Your task to perform on an android device: turn off airplane mode Image 0: 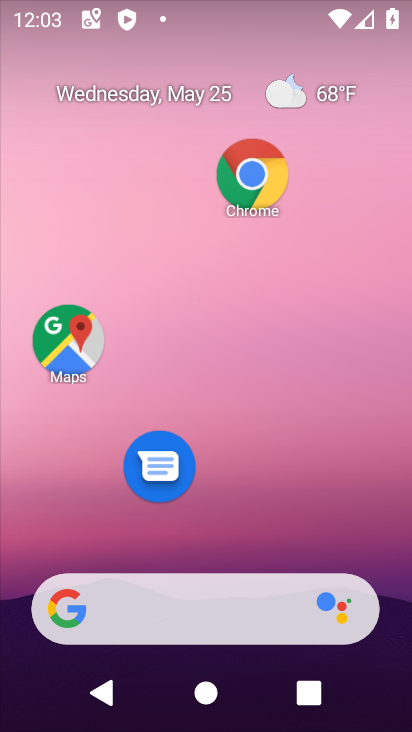
Step 0: drag from (204, 540) to (196, 81)
Your task to perform on an android device: turn off airplane mode Image 1: 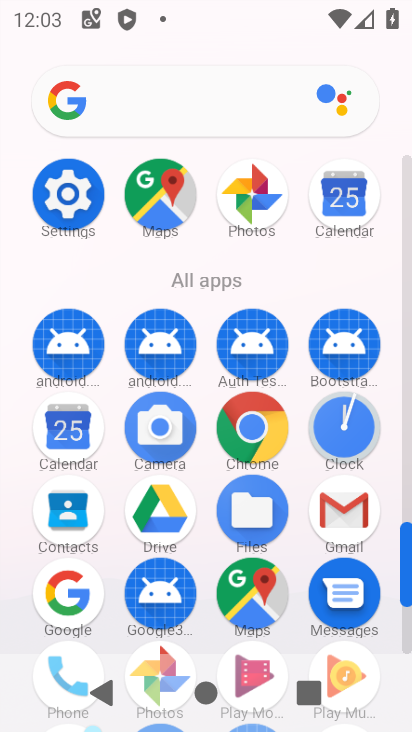
Step 1: click (89, 215)
Your task to perform on an android device: turn off airplane mode Image 2: 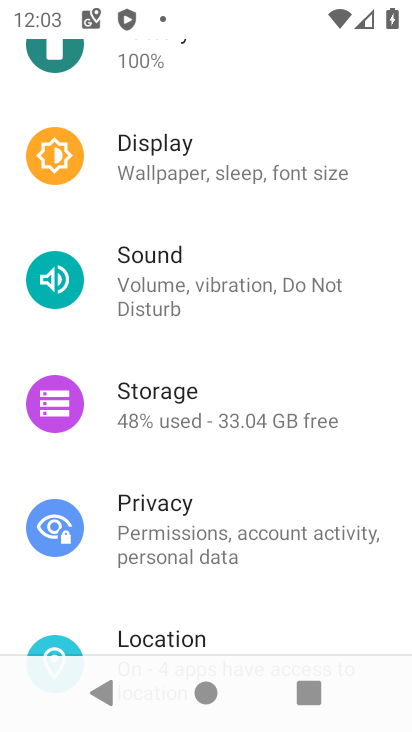
Step 2: click (80, 209)
Your task to perform on an android device: turn off airplane mode Image 3: 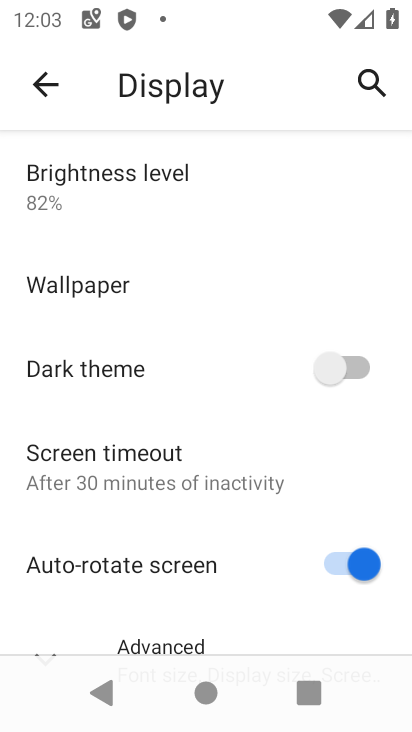
Step 3: click (42, 94)
Your task to perform on an android device: turn off airplane mode Image 4: 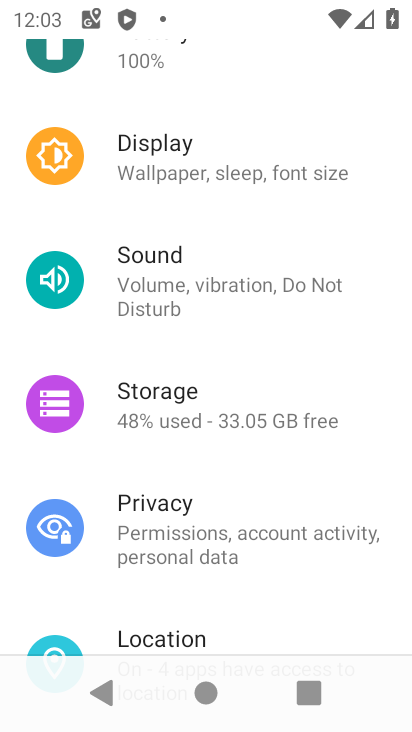
Step 4: drag from (42, 94) to (22, 548)
Your task to perform on an android device: turn off airplane mode Image 5: 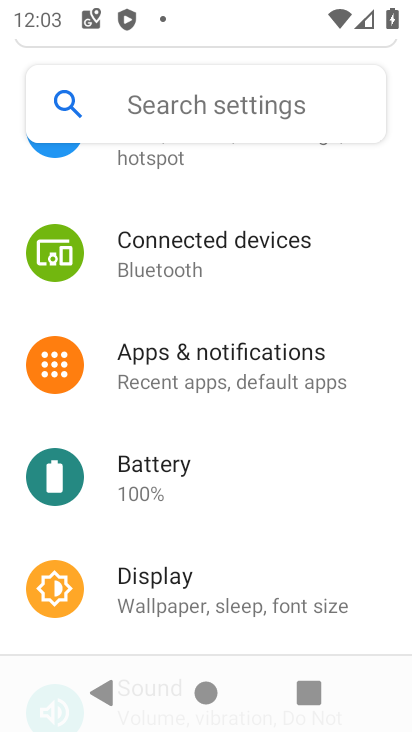
Step 5: drag from (150, 258) to (137, 413)
Your task to perform on an android device: turn off airplane mode Image 6: 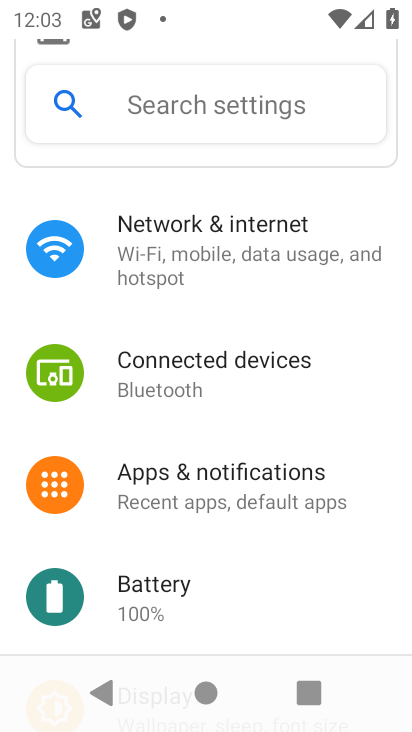
Step 6: click (172, 287)
Your task to perform on an android device: turn off airplane mode Image 7: 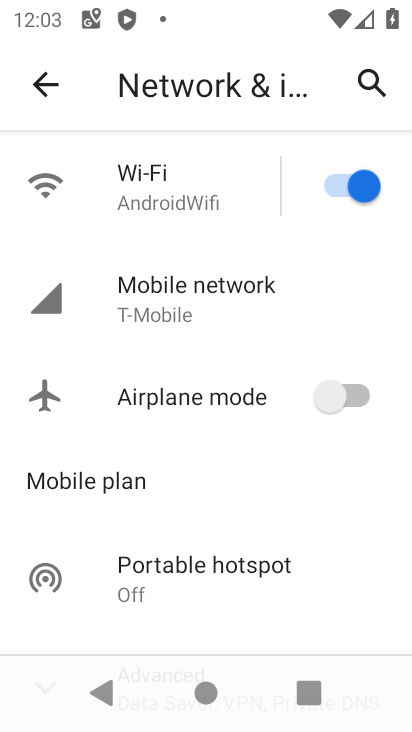
Step 7: task complete